Your task to perform on an android device: check out phone information Image 0: 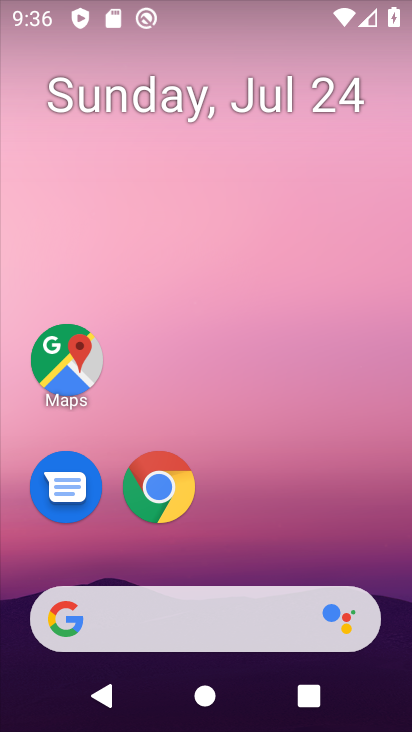
Step 0: drag from (224, 560) to (311, 5)
Your task to perform on an android device: check out phone information Image 1: 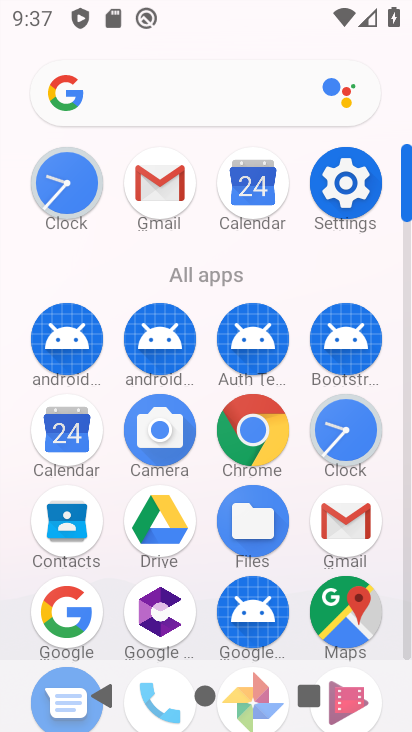
Step 1: click (355, 193)
Your task to perform on an android device: check out phone information Image 2: 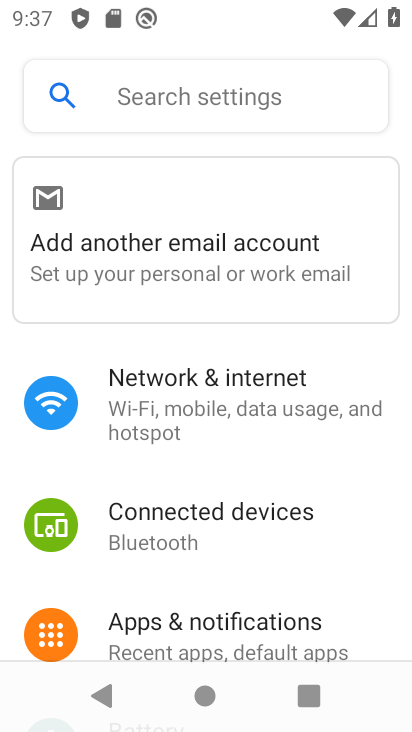
Step 2: drag from (177, 582) to (282, 20)
Your task to perform on an android device: check out phone information Image 3: 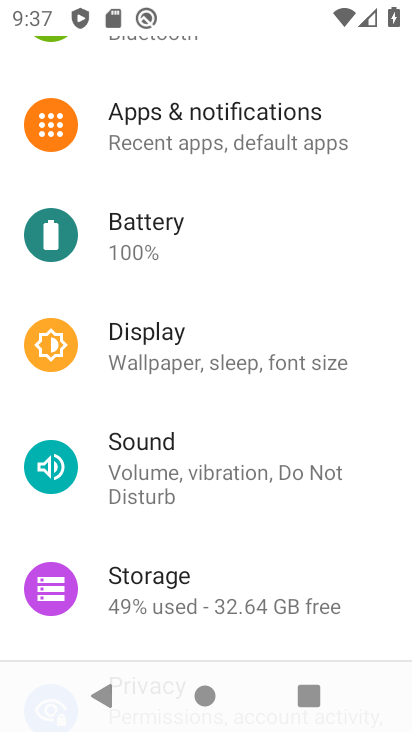
Step 3: drag from (138, 605) to (224, 0)
Your task to perform on an android device: check out phone information Image 4: 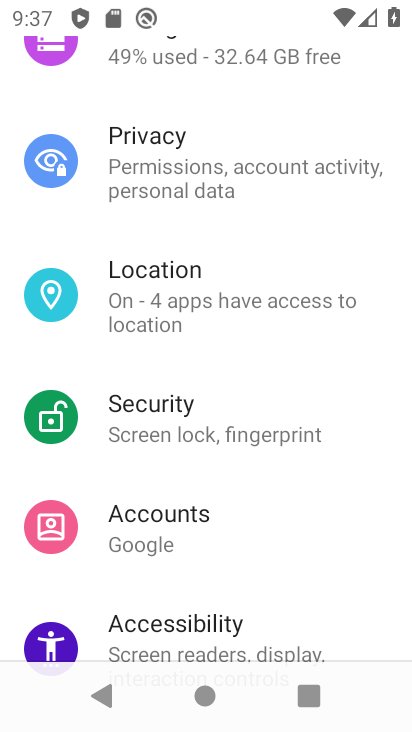
Step 4: drag from (174, 586) to (255, 25)
Your task to perform on an android device: check out phone information Image 5: 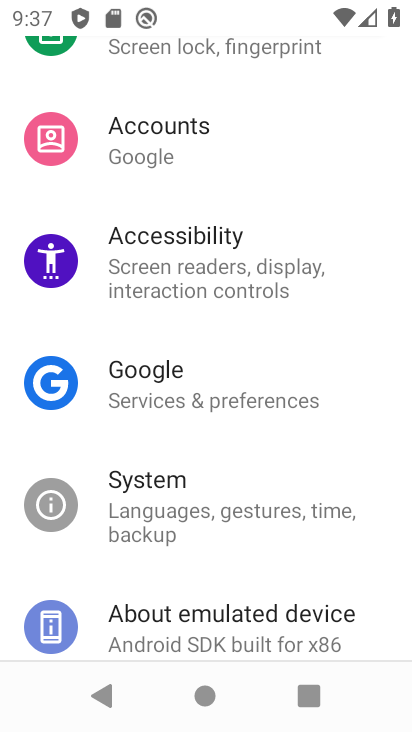
Step 5: drag from (211, 583) to (302, 14)
Your task to perform on an android device: check out phone information Image 6: 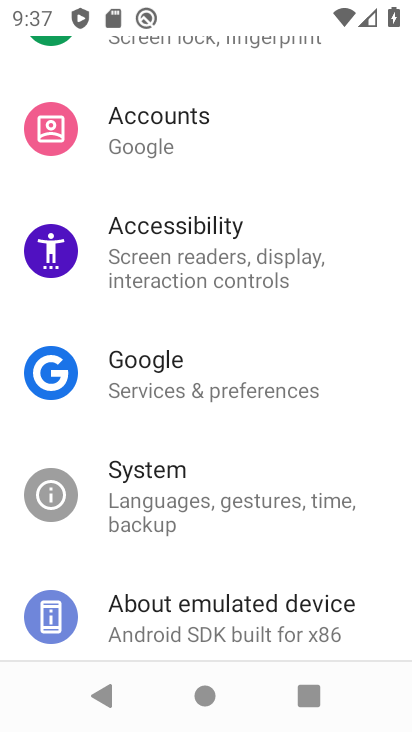
Step 6: click (194, 623)
Your task to perform on an android device: check out phone information Image 7: 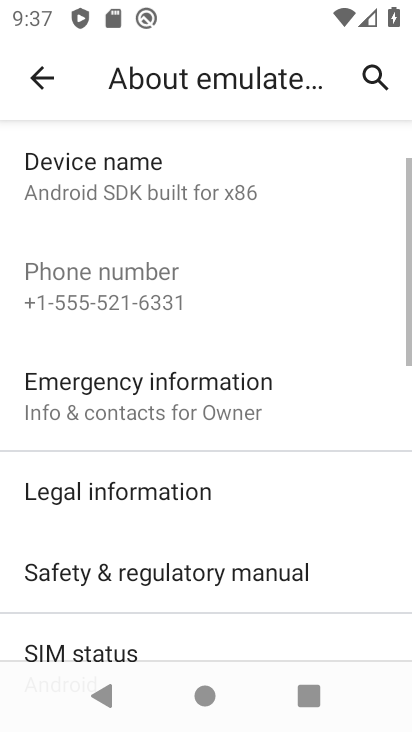
Step 7: task complete